Your task to perform on an android device: Open the calendar and show me this week's events? Image 0: 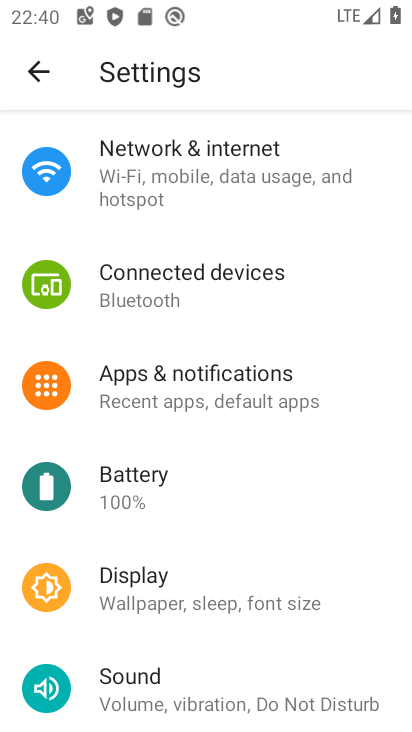
Step 0: press home button
Your task to perform on an android device: Open the calendar and show me this week's events? Image 1: 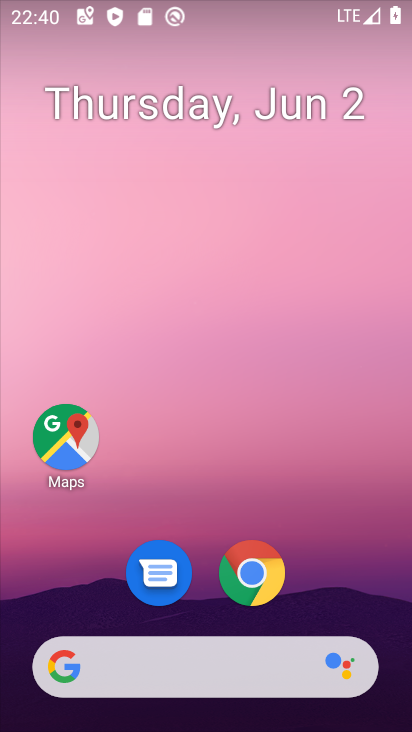
Step 1: click (185, 112)
Your task to perform on an android device: Open the calendar and show me this week's events? Image 2: 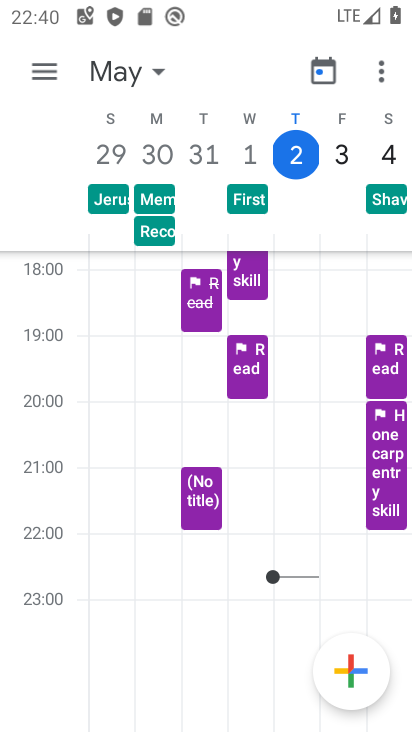
Step 2: click (44, 63)
Your task to perform on an android device: Open the calendar and show me this week's events? Image 3: 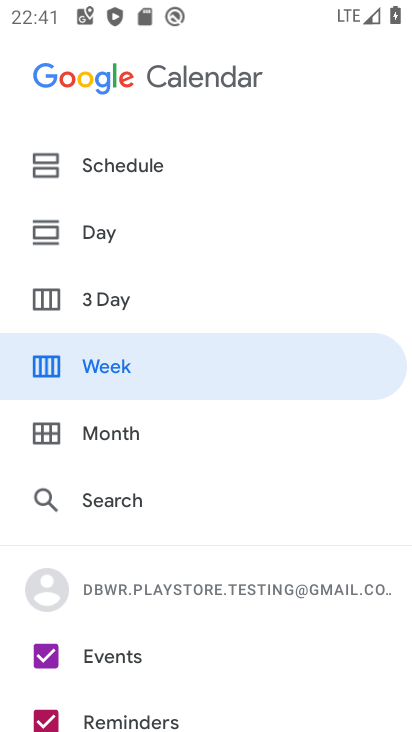
Step 3: drag from (215, 699) to (226, 325)
Your task to perform on an android device: Open the calendar and show me this week's events? Image 4: 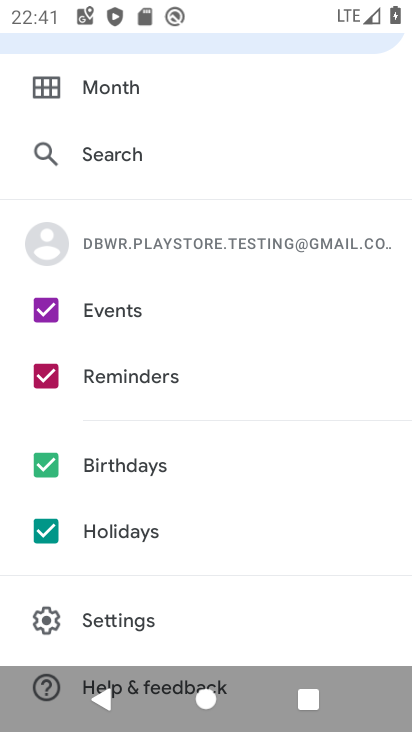
Step 4: click (41, 527)
Your task to perform on an android device: Open the calendar and show me this week's events? Image 5: 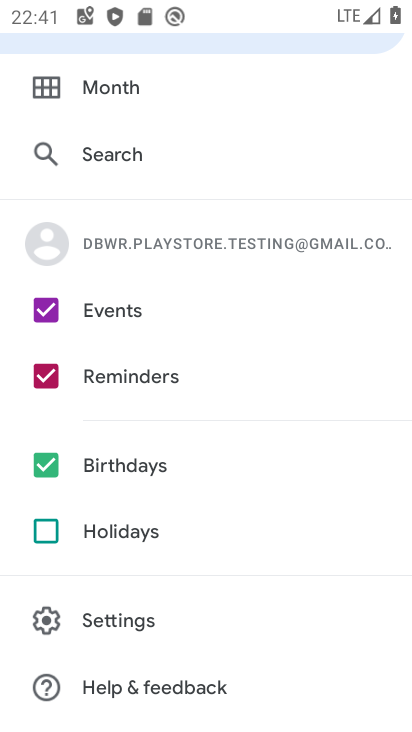
Step 5: click (41, 455)
Your task to perform on an android device: Open the calendar and show me this week's events? Image 6: 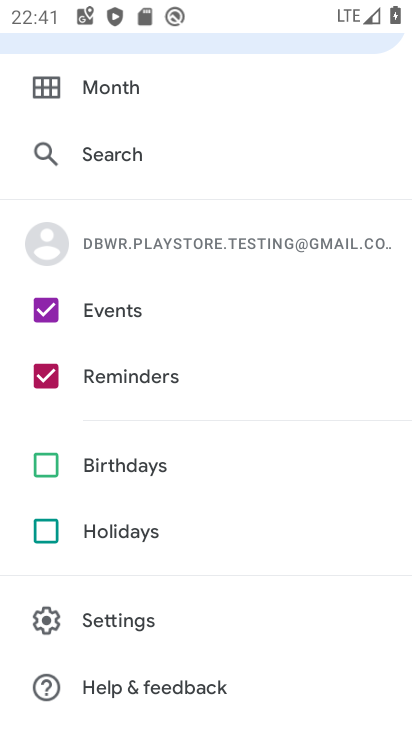
Step 6: click (46, 365)
Your task to perform on an android device: Open the calendar and show me this week's events? Image 7: 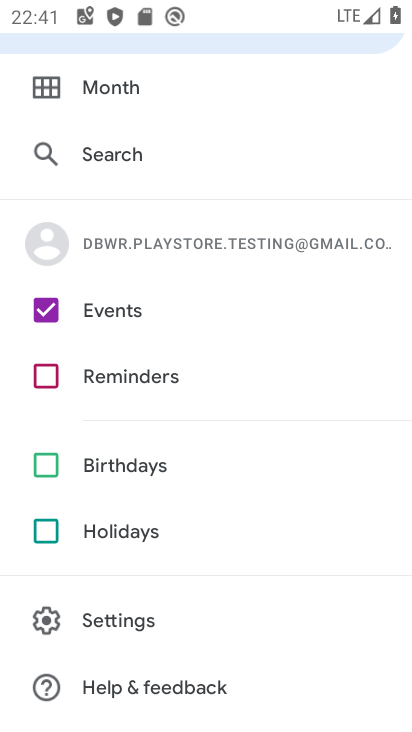
Step 7: drag from (290, 188) to (269, 546)
Your task to perform on an android device: Open the calendar and show me this week's events? Image 8: 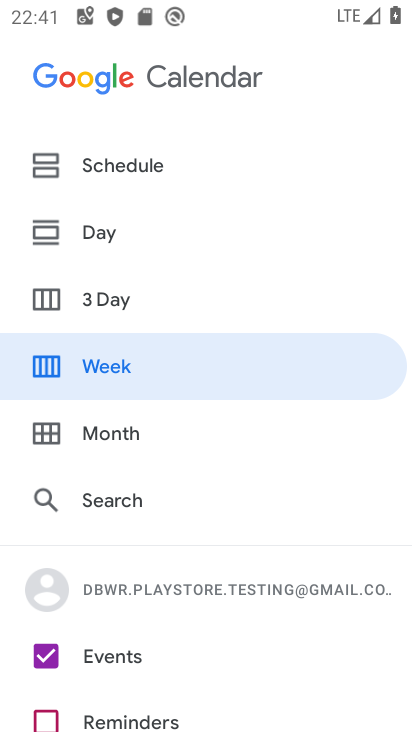
Step 8: click (202, 359)
Your task to perform on an android device: Open the calendar and show me this week's events? Image 9: 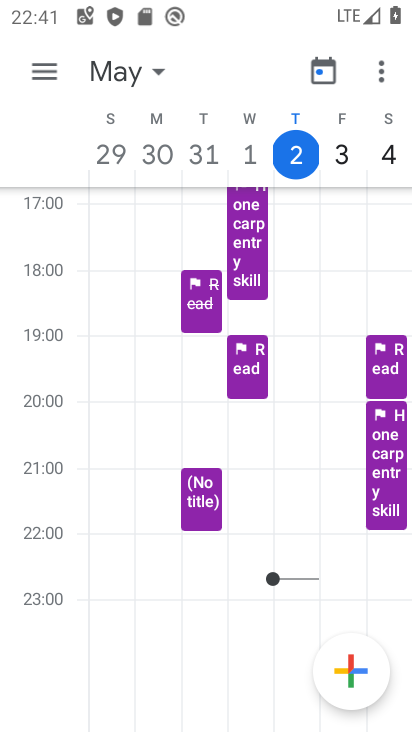
Step 9: task complete